Your task to perform on an android device: toggle sleep mode Image 0: 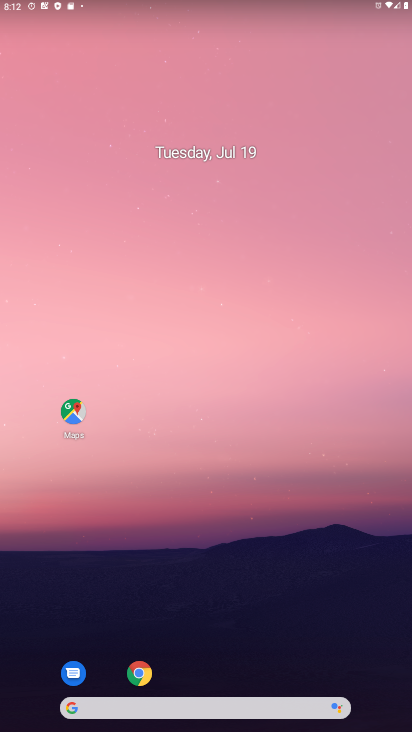
Step 0: drag from (281, 637) to (195, 93)
Your task to perform on an android device: toggle sleep mode Image 1: 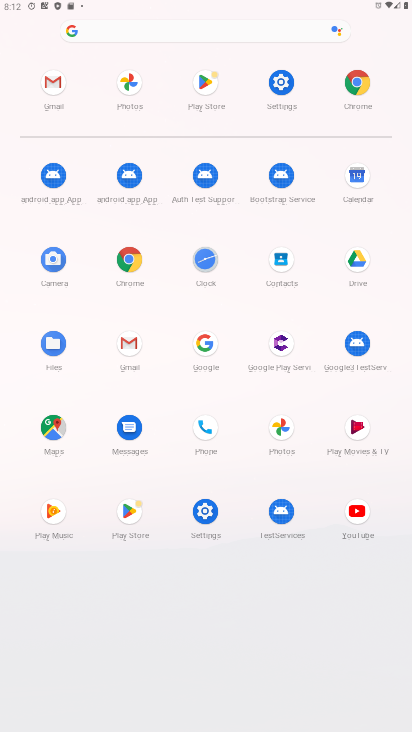
Step 1: click (215, 516)
Your task to perform on an android device: toggle sleep mode Image 2: 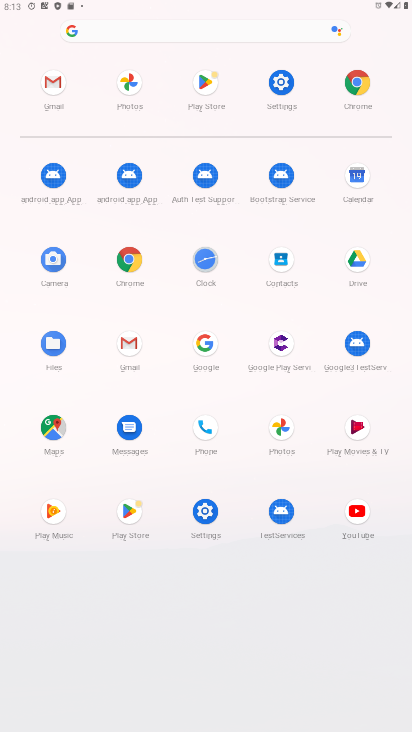
Step 2: click (269, 80)
Your task to perform on an android device: toggle sleep mode Image 3: 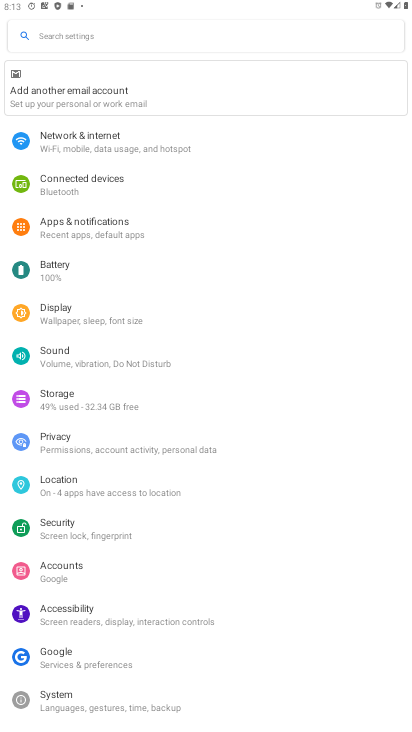
Step 3: click (82, 315)
Your task to perform on an android device: toggle sleep mode Image 4: 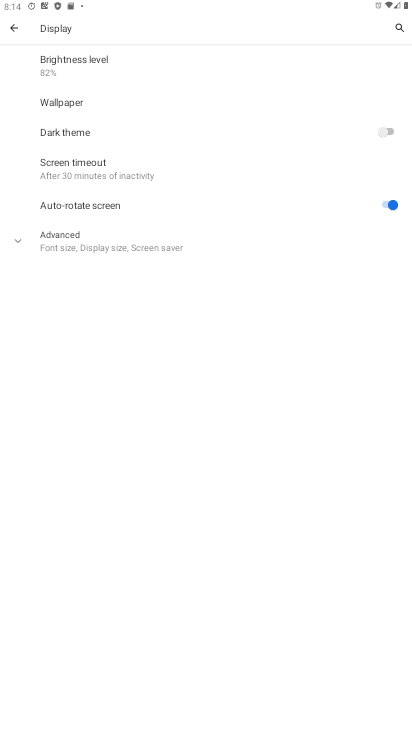
Step 4: click (91, 182)
Your task to perform on an android device: toggle sleep mode Image 5: 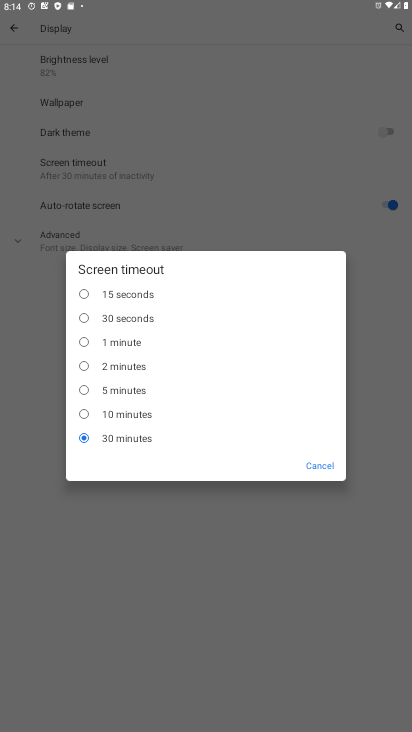
Step 5: click (126, 368)
Your task to perform on an android device: toggle sleep mode Image 6: 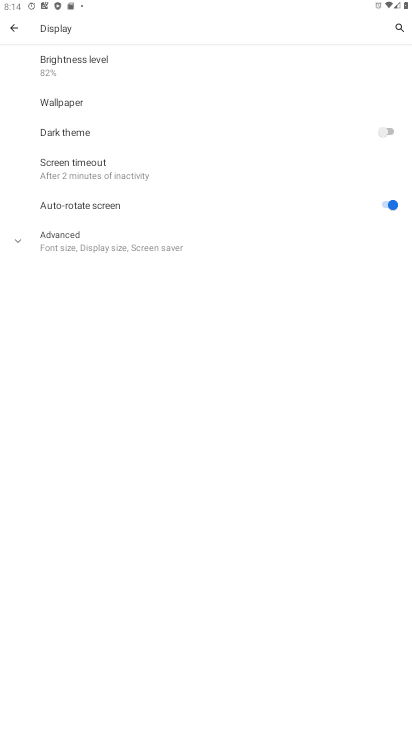
Step 6: task complete